Your task to perform on an android device: change the clock display to show seconds Image 0: 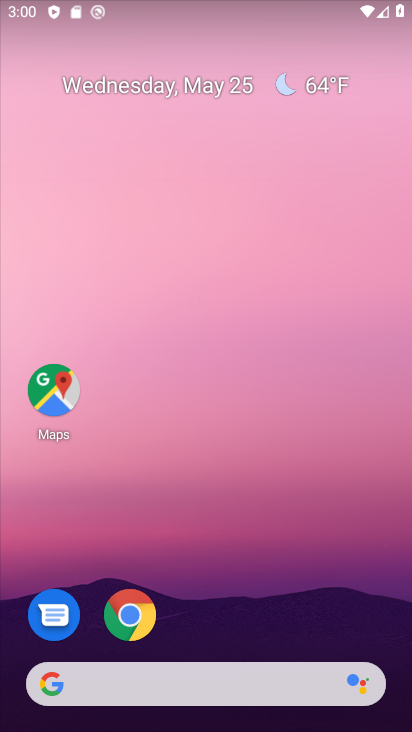
Step 0: drag from (291, 632) to (300, 0)
Your task to perform on an android device: change the clock display to show seconds Image 1: 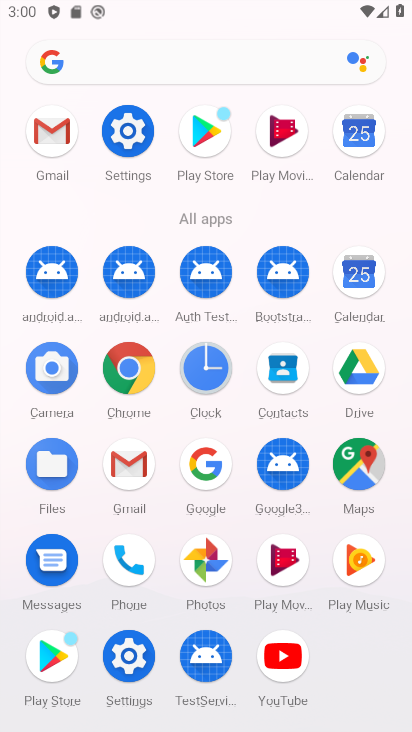
Step 1: click (201, 387)
Your task to perform on an android device: change the clock display to show seconds Image 2: 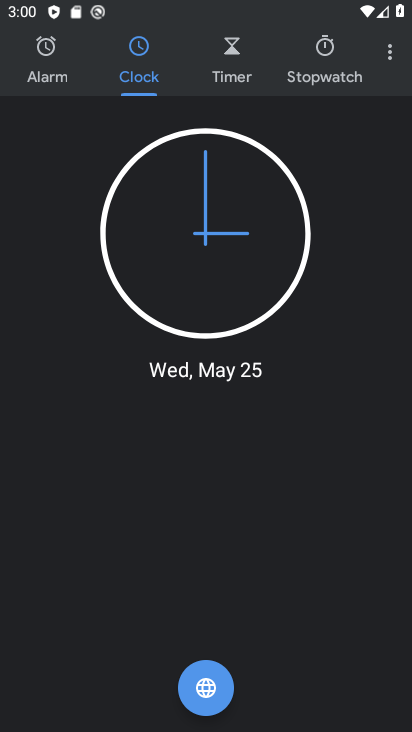
Step 2: click (389, 59)
Your task to perform on an android device: change the clock display to show seconds Image 3: 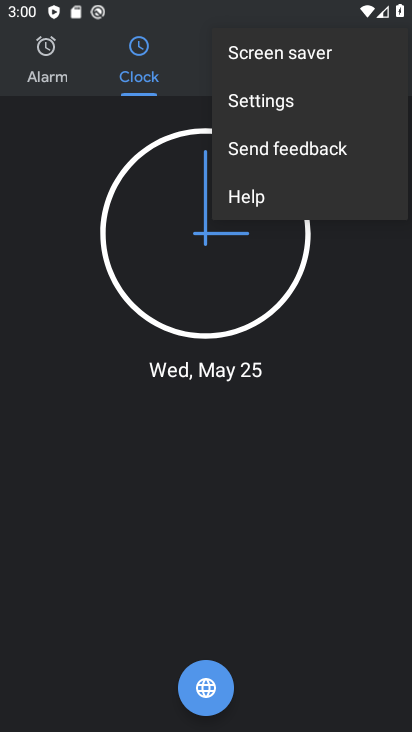
Step 3: click (267, 121)
Your task to perform on an android device: change the clock display to show seconds Image 4: 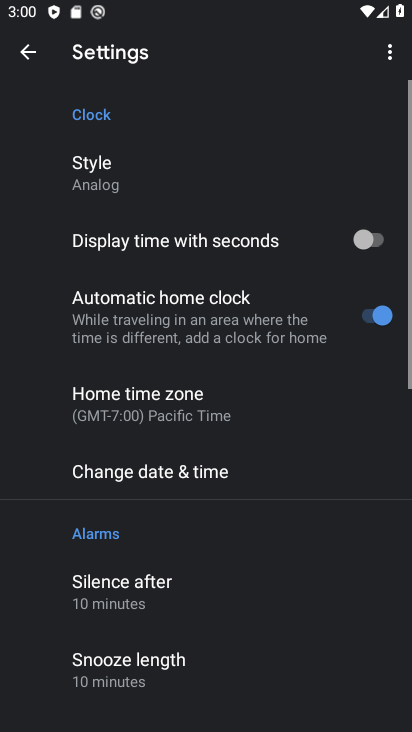
Step 4: click (367, 238)
Your task to perform on an android device: change the clock display to show seconds Image 5: 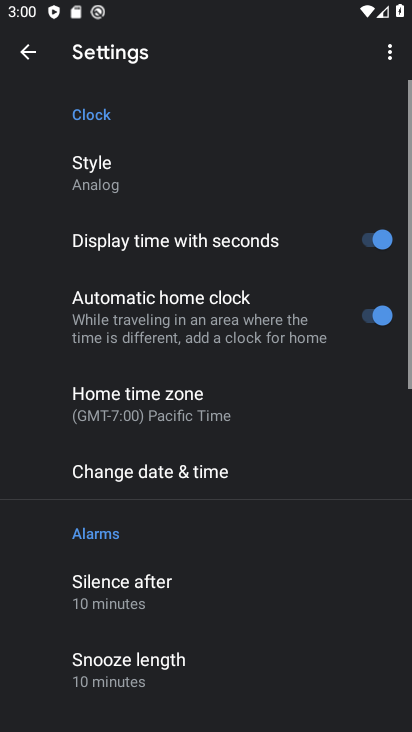
Step 5: task complete